Your task to perform on an android device: Open Chrome and go to the settings page Image 0: 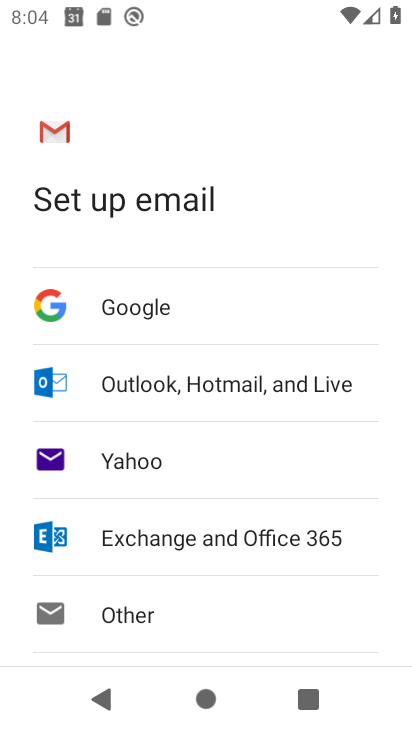
Step 0: press home button
Your task to perform on an android device: Open Chrome and go to the settings page Image 1: 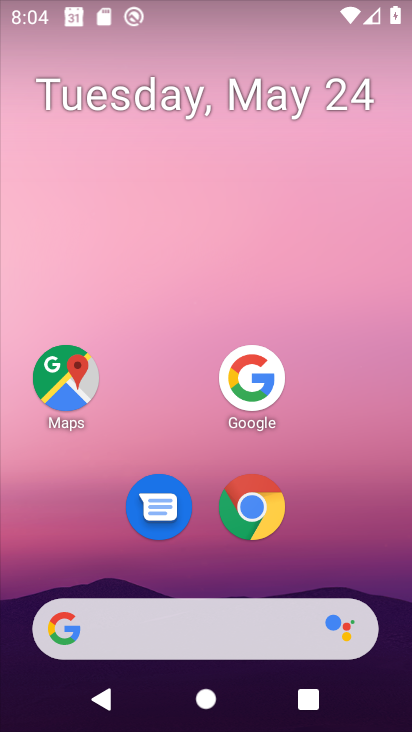
Step 1: click (253, 517)
Your task to perform on an android device: Open Chrome and go to the settings page Image 2: 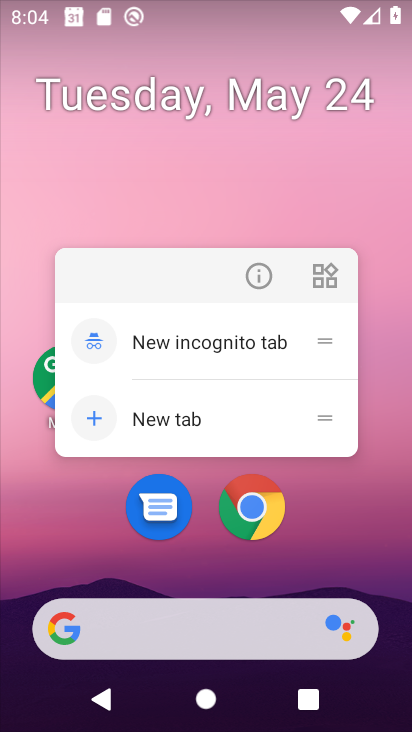
Step 2: click (254, 514)
Your task to perform on an android device: Open Chrome and go to the settings page Image 3: 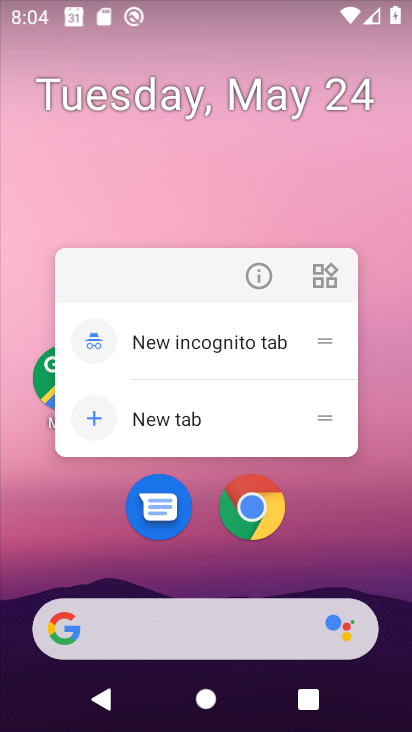
Step 3: click (256, 524)
Your task to perform on an android device: Open Chrome and go to the settings page Image 4: 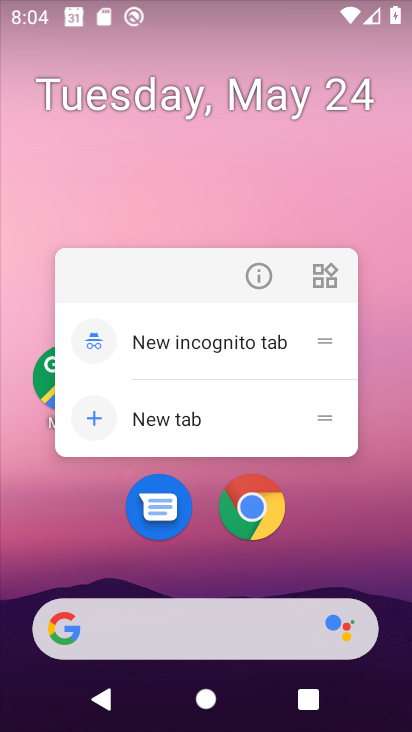
Step 4: click (253, 519)
Your task to perform on an android device: Open Chrome and go to the settings page Image 5: 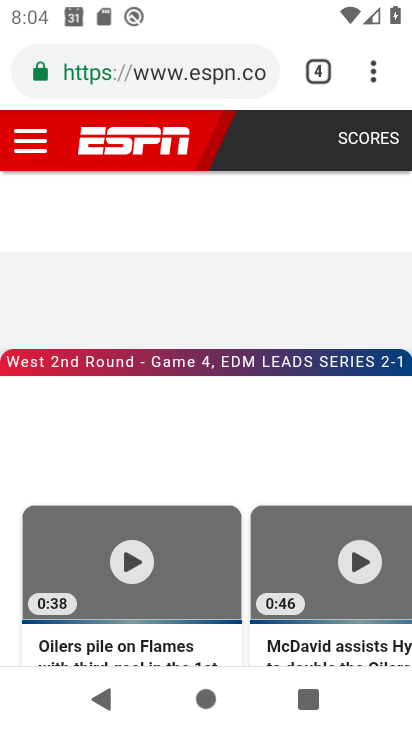
Step 5: task complete